Your task to perform on an android device: Go to Reddit.com Image 0: 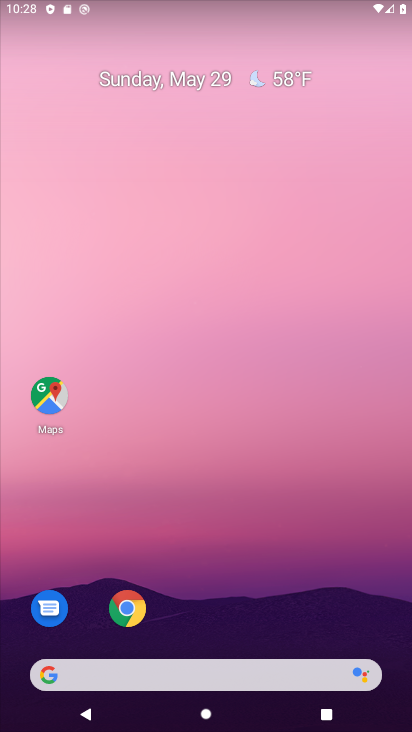
Step 0: drag from (157, 632) to (214, 182)
Your task to perform on an android device: Go to Reddit.com Image 1: 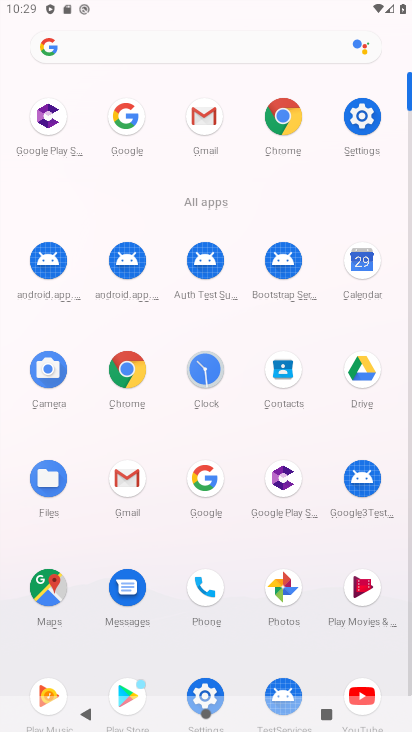
Step 1: click (203, 477)
Your task to perform on an android device: Go to Reddit.com Image 2: 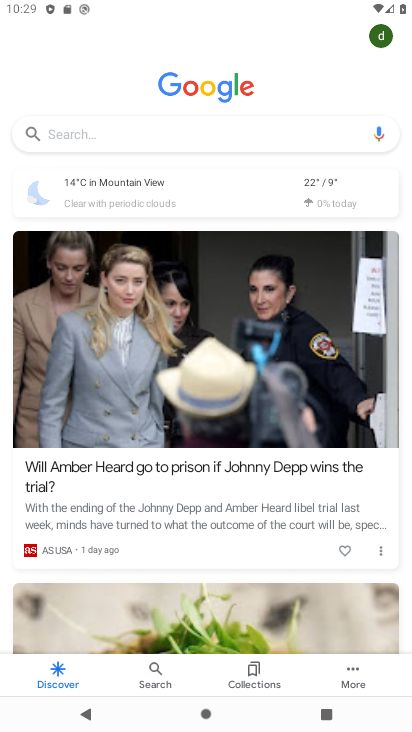
Step 2: click (103, 136)
Your task to perform on an android device: Go to Reddit.com Image 3: 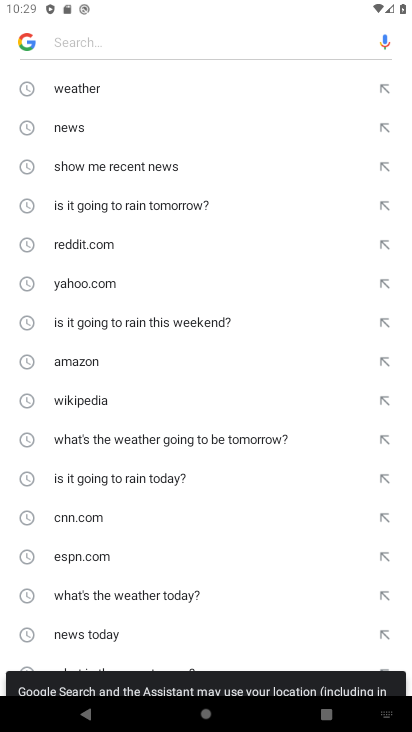
Step 3: click (87, 249)
Your task to perform on an android device: Go to Reddit.com Image 4: 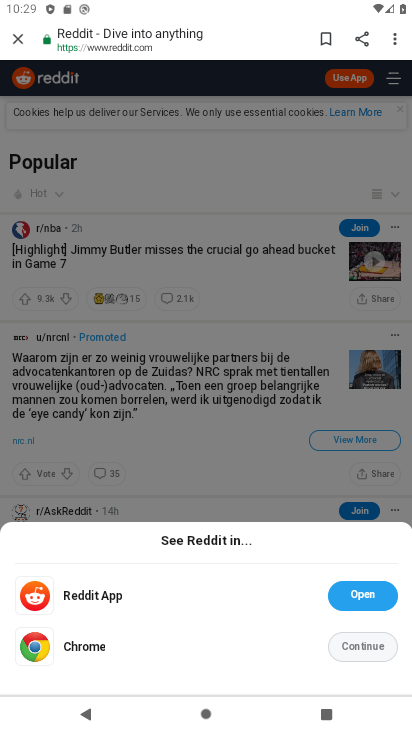
Step 4: task complete